Your task to perform on an android device: What's the weather today? Image 0: 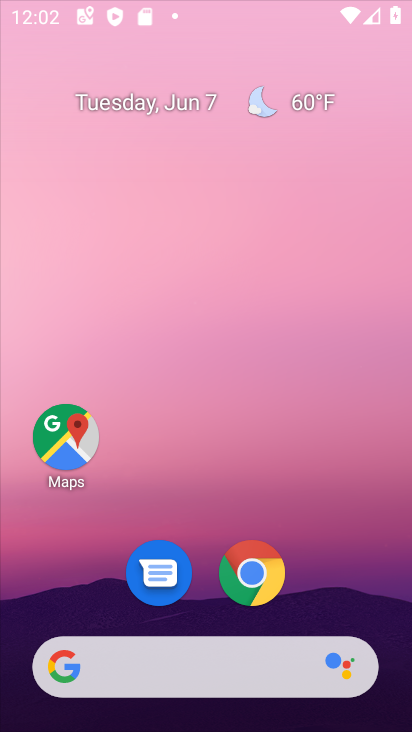
Step 0: press home button
Your task to perform on an android device: What's the weather today? Image 1: 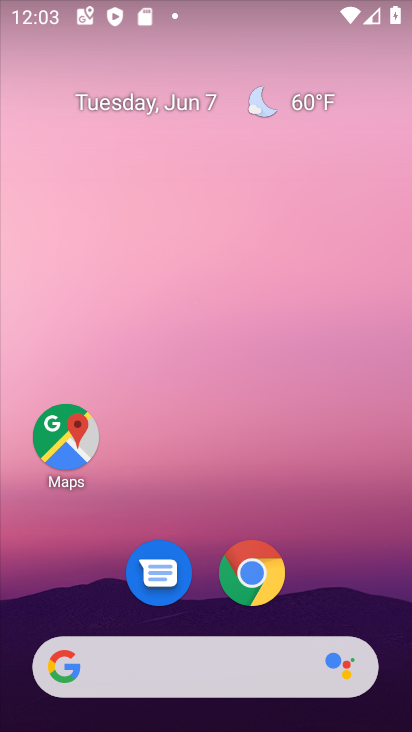
Step 1: drag from (56, 730) to (8, 728)
Your task to perform on an android device: What's the weather today? Image 2: 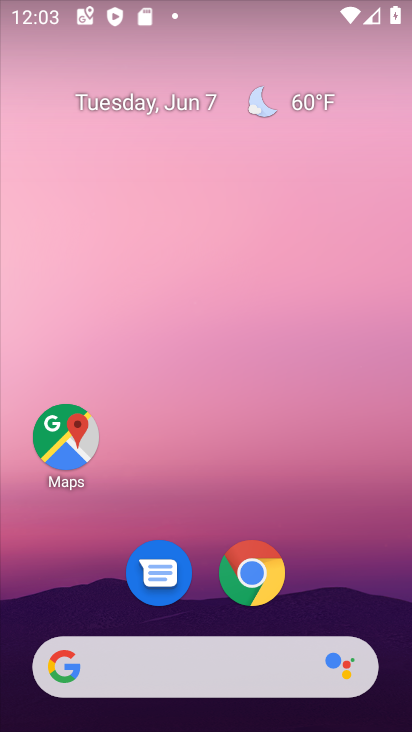
Step 2: click (210, 572)
Your task to perform on an android device: What's the weather today? Image 3: 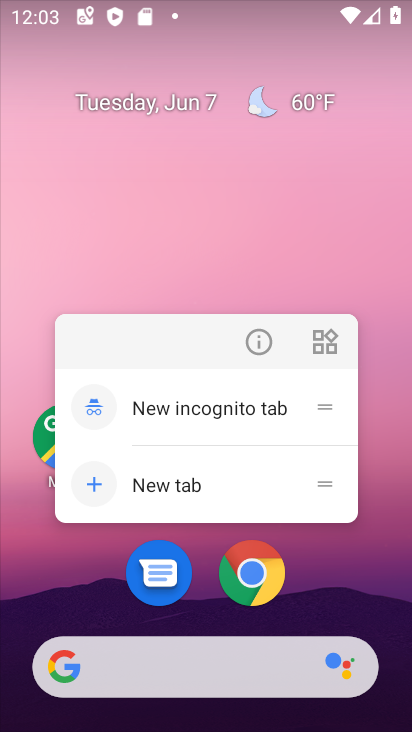
Step 3: click (263, 569)
Your task to perform on an android device: What's the weather today? Image 4: 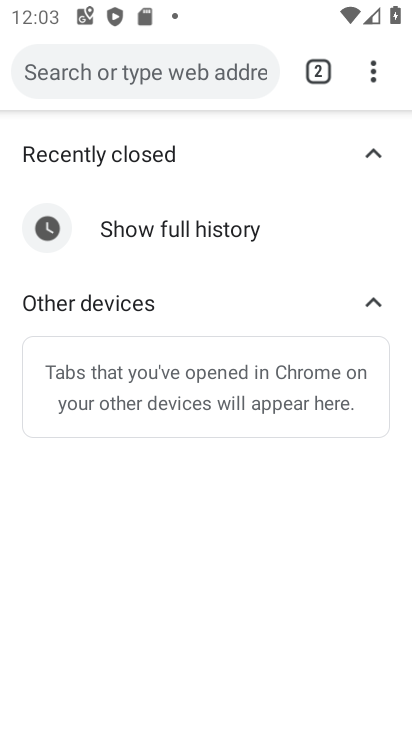
Step 4: click (109, 83)
Your task to perform on an android device: What's the weather today? Image 5: 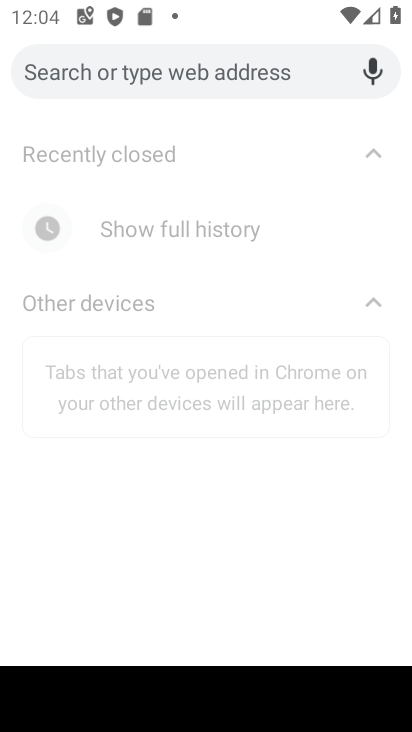
Step 5: type "What's the weather today?"
Your task to perform on an android device: What's the weather today? Image 6: 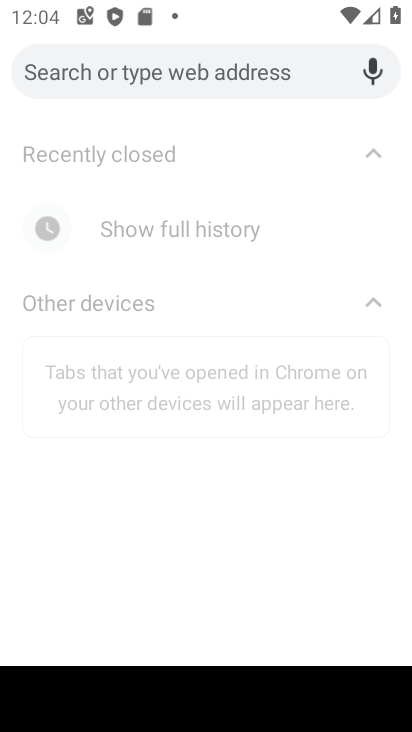
Step 6: click (257, 141)
Your task to perform on an android device: What's the weather today? Image 7: 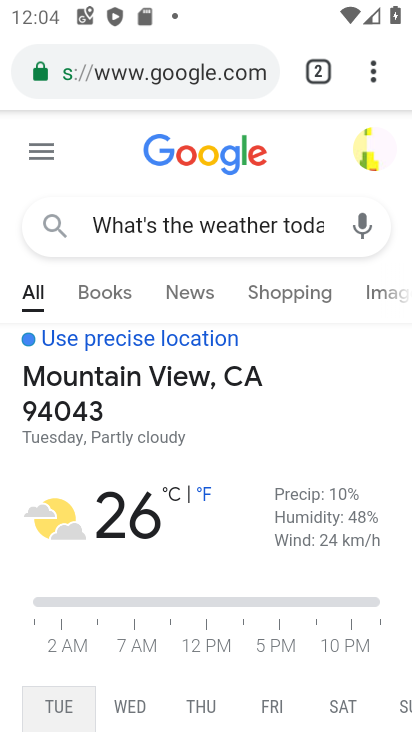
Step 7: task complete